Your task to perform on an android device: Open network settings Image 0: 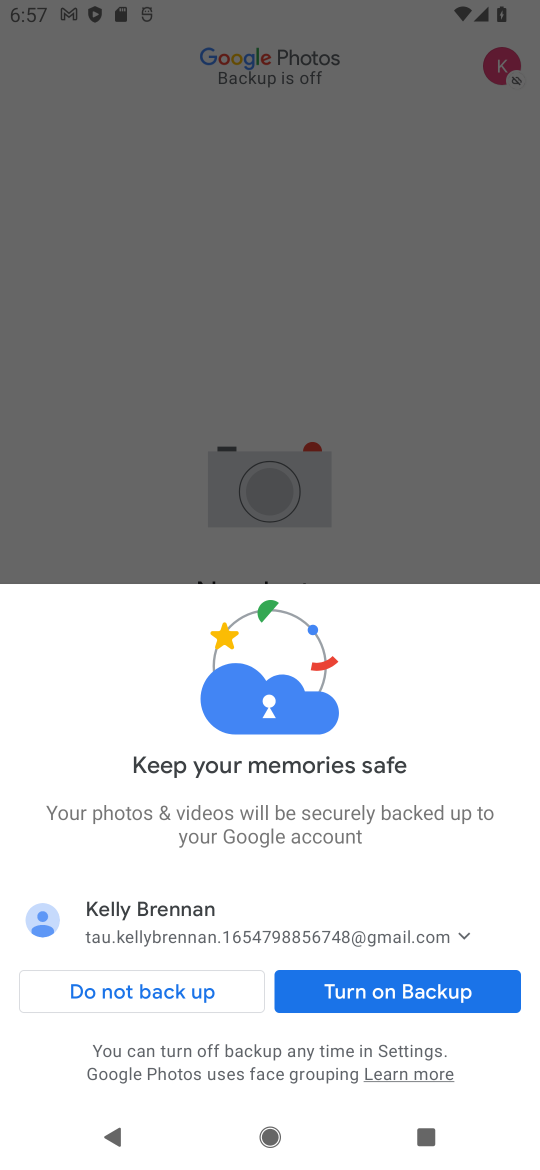
Step 0: press home button
Your task to perform on an android device: Open network settings Image 1: 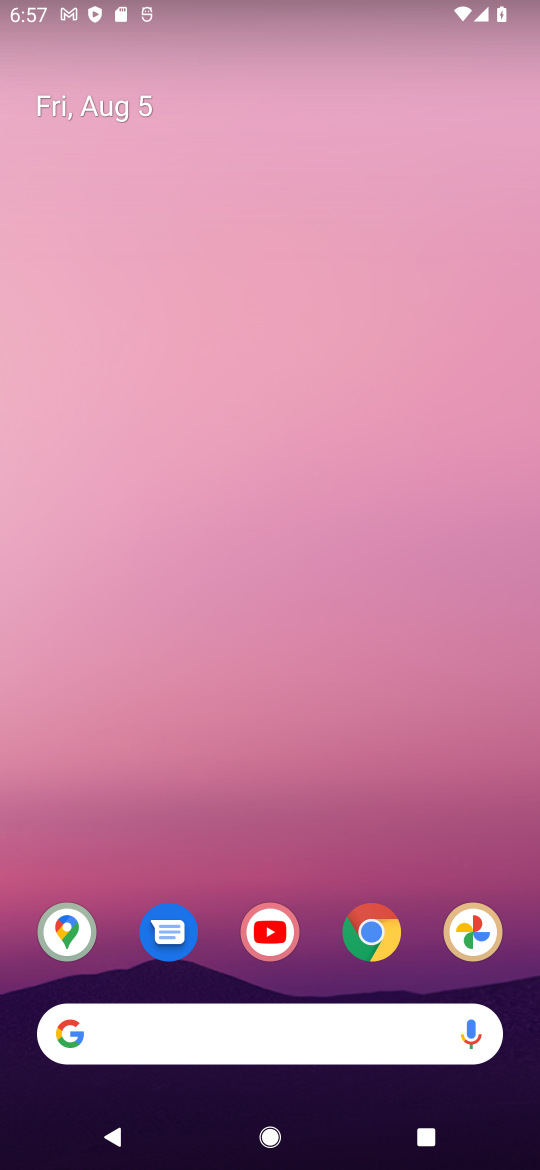
Step 1: drag from (370, 833) to (385, 163)
Your task to perform on an android device: Open network settings Image 2: 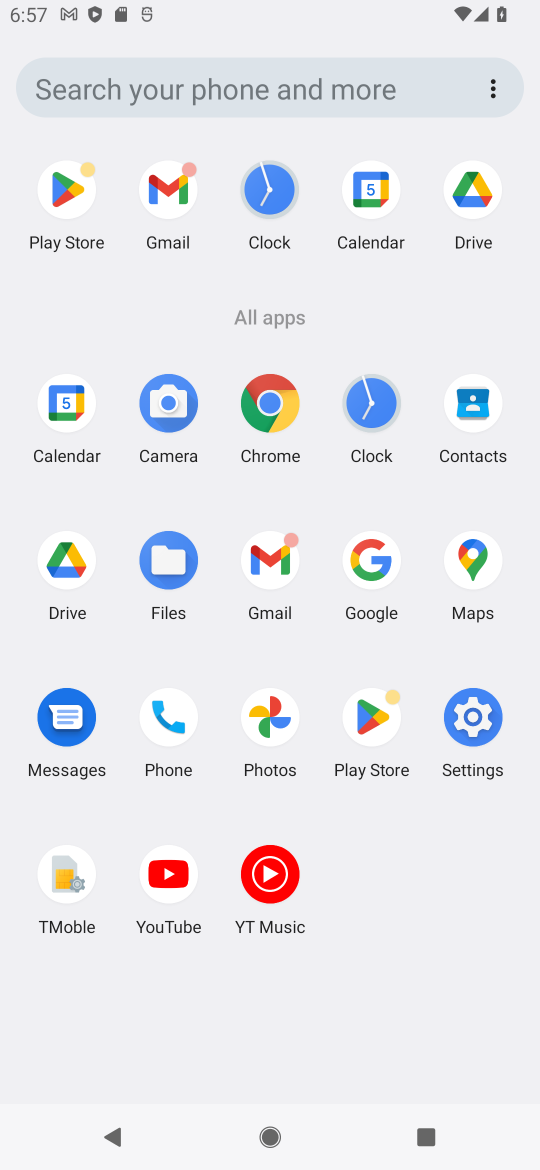
Step 2: click (480, 724)
Your task to perform on an android device: Open network settings Image 3: 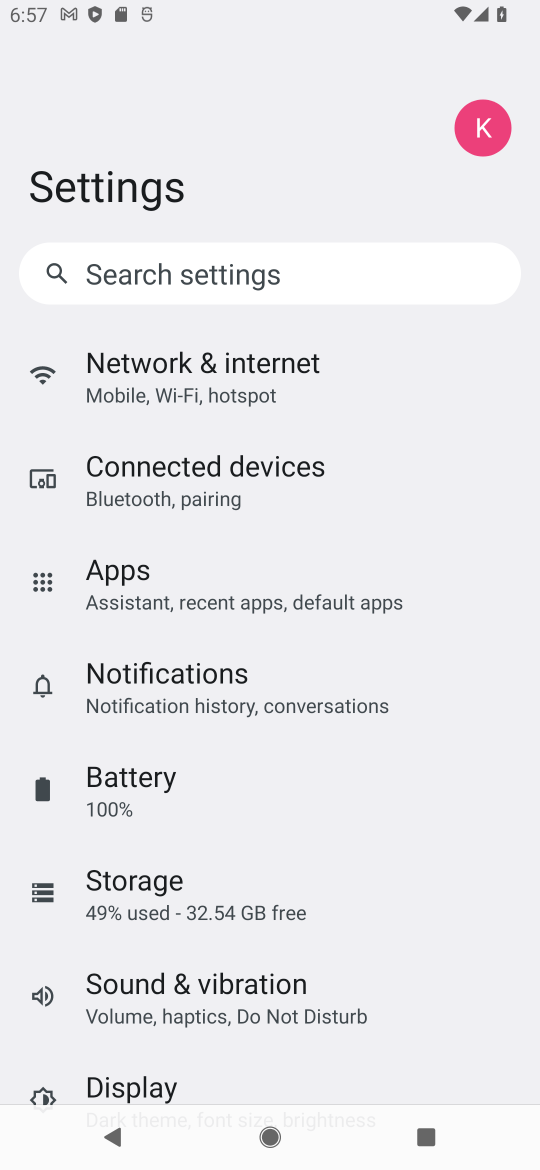
Step 3: click (227, 410)
Your task to perform on an android device: Open network settings Image 4: 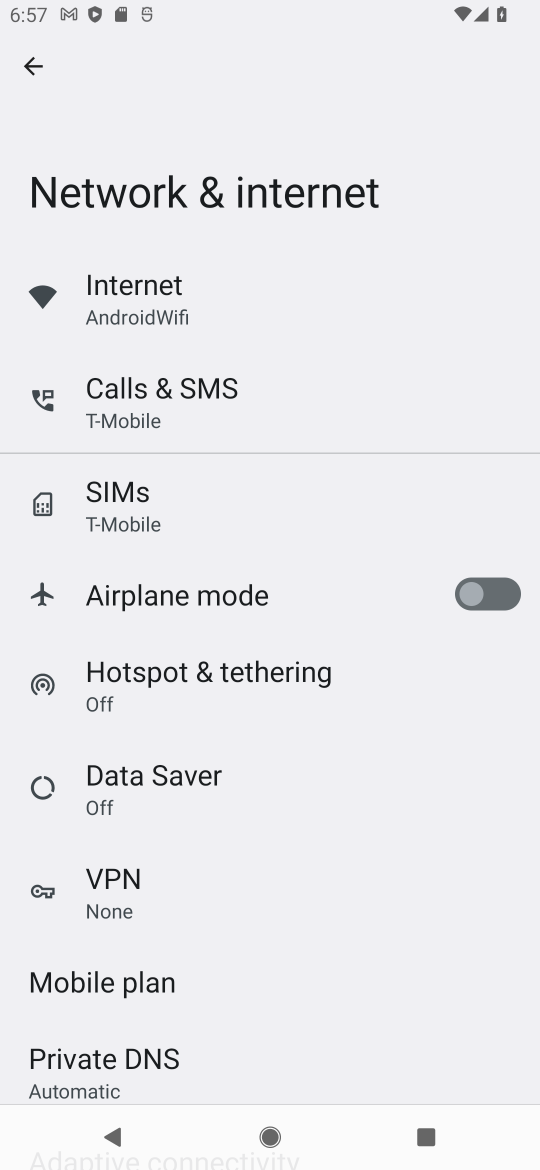
Step 4: task complete